Your task to perform on an android device: Show me popular games on the Play Store Image 0: 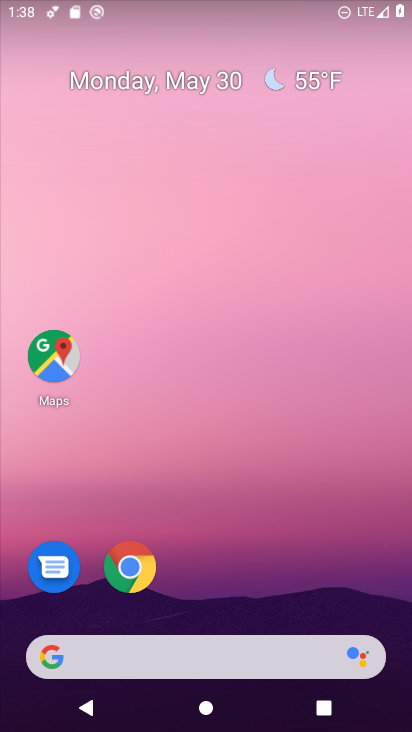
Step 0: press home button
Your task to perform on an android device: Show me popular games on the Play Store Image 1: 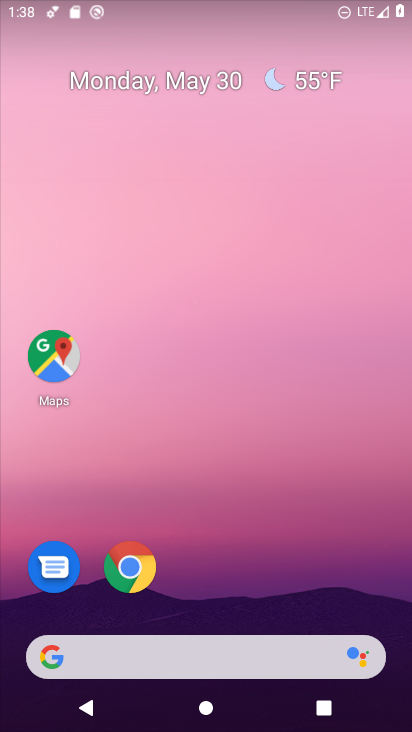
Step 1: drag from (212, 605) to (273, 18)
Your task to perform on an android device: Show me popular games on the Play Store Image 2: 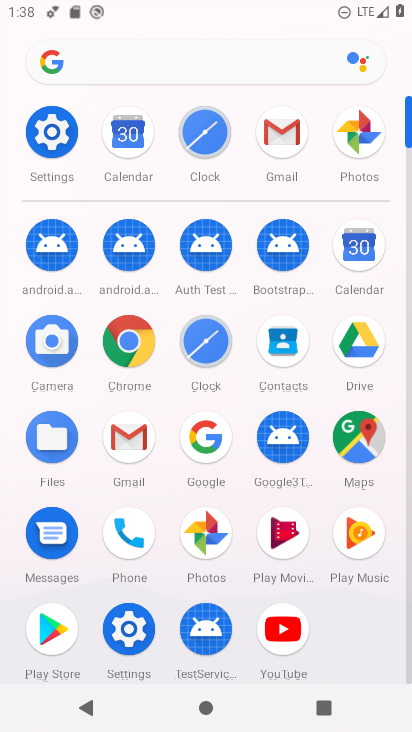
Step 2: click (52, 623)
Your task to perform on an android device: Show me popular games on the Play Store Image 3: 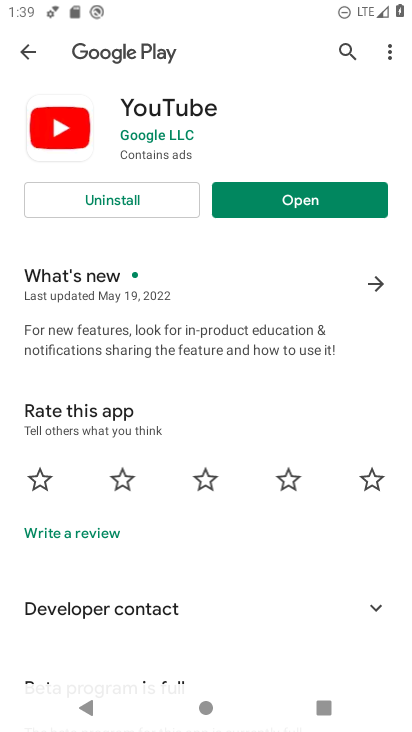
Step 3: click (25, 50)
Your task to perform on an android device: Show me popular games on the Play Store Image 4: 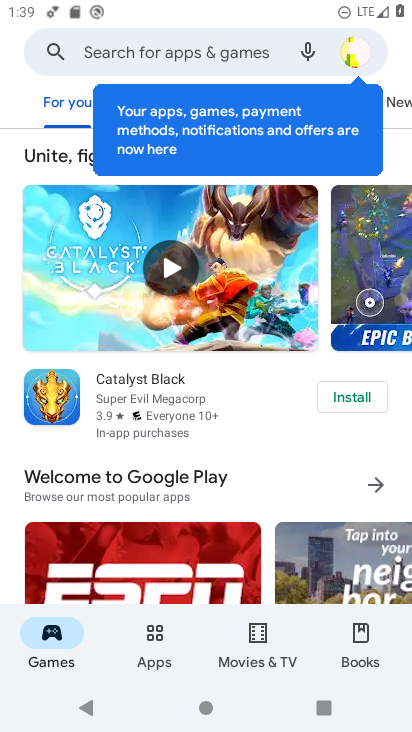
Step 4: drag from (175, 495) to (201, 104)
Your task to perform on an android device: Show me popular games on the Play Store Image 5: 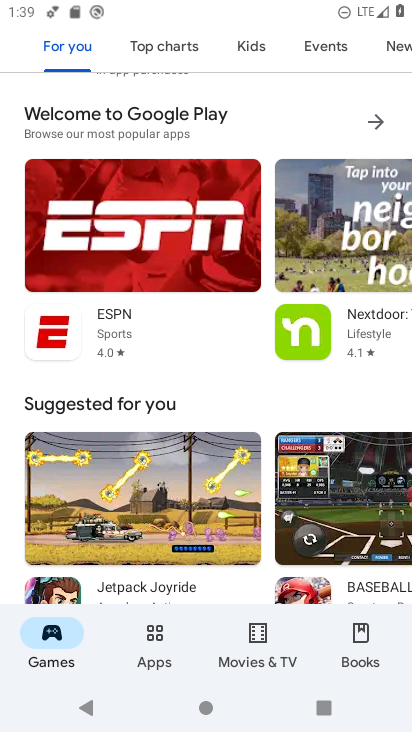
Step 5: drag from (215, 496) to (223, 80)
Your task to perform on an android device: Show me popular games on the Play Store Image 6: 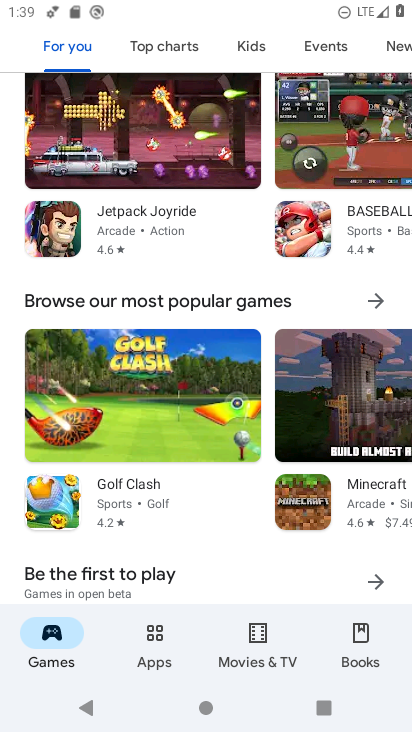
Step 6: click (371, 291)
Your task to perform on an android device: Show me popular games on the Play Store Image 7: 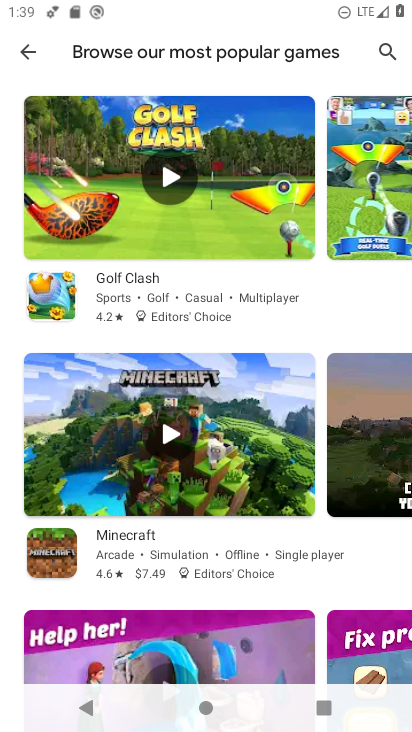
Step 7: task complete